Your task to perform on an android device: empty trash in the gmail app Image 0: 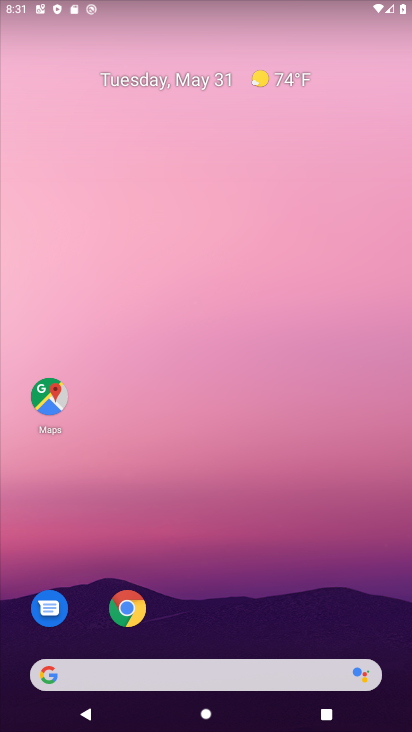
Step 0: drag from (237, 625) to (218, 99)
Your task to perform on an android device: empty trash in the gmail app Image 1: 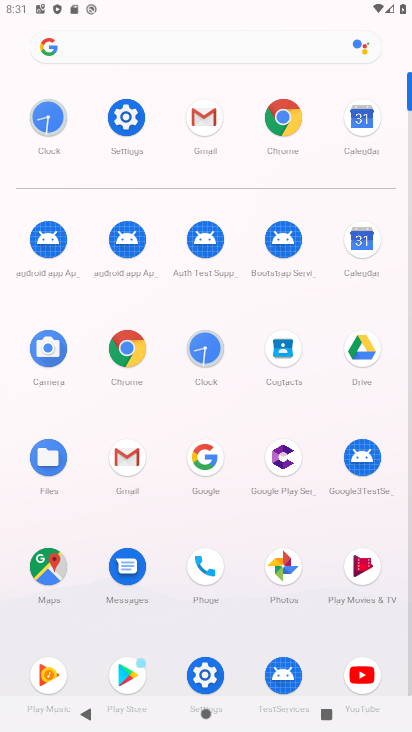
Step 1: click (126, 442)
Your task to perform on an android device: empty trash in the gmail app Image 2: 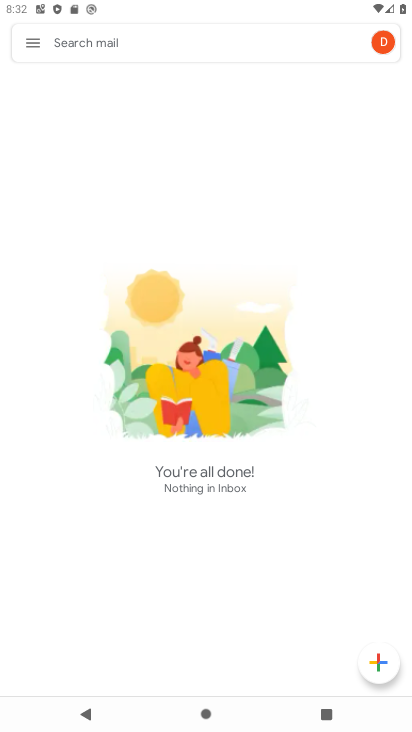
Step 2: click (27, 52)
Your task to perform on an android device: empty trash in the gmail app Image 3: 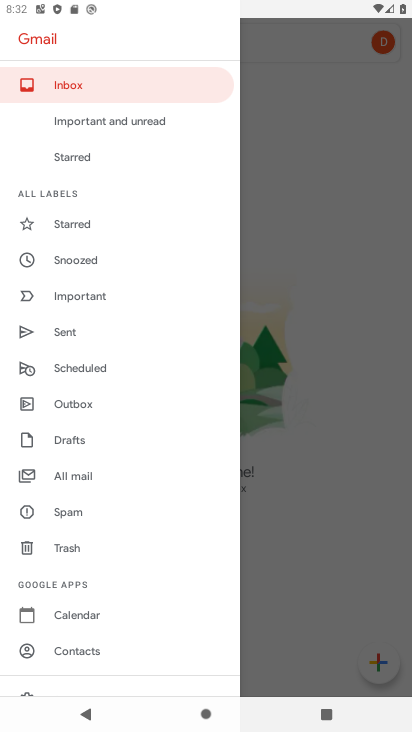
Step 3: click (53, 540)
Your task to perform on an android device: empty trash in the gmail app Image 4: 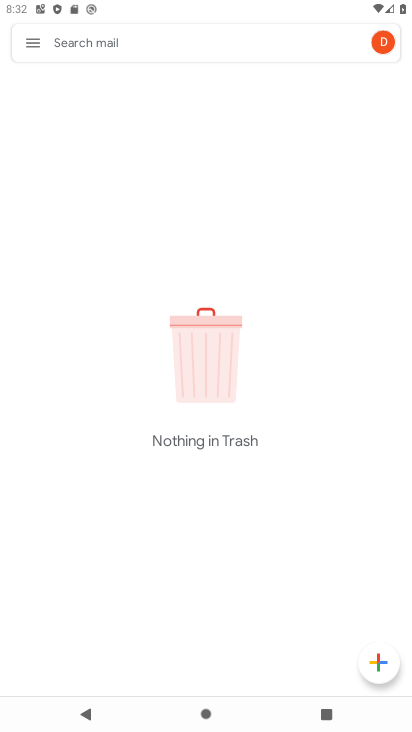
Step 4: task complete